Your task to perform on an android device: Is it going to rain today? Image 0: 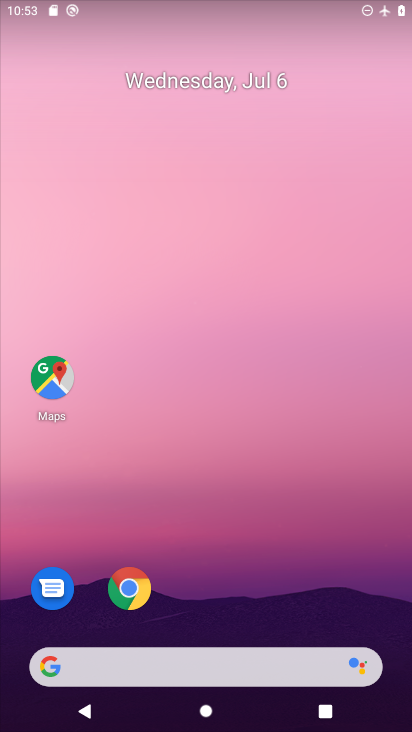
Step 0: drag from (275, 619) to (238, 133)
Your task to perform on an android device: Is it going to rain today? Image 1: 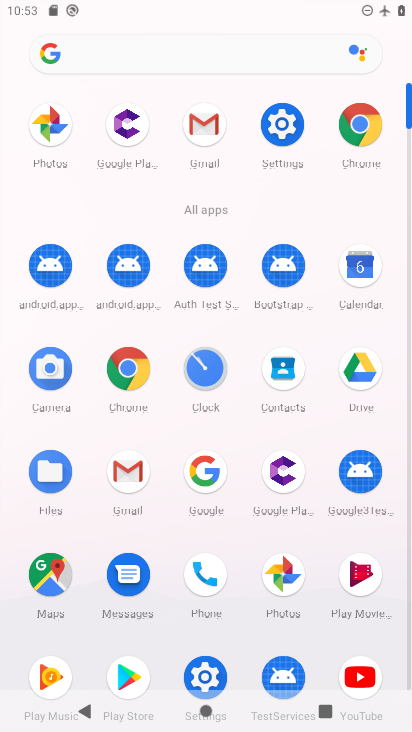
Step 1: click (358, 140)
Your task to perform on an android device: Is it going to rain today? Image 2: 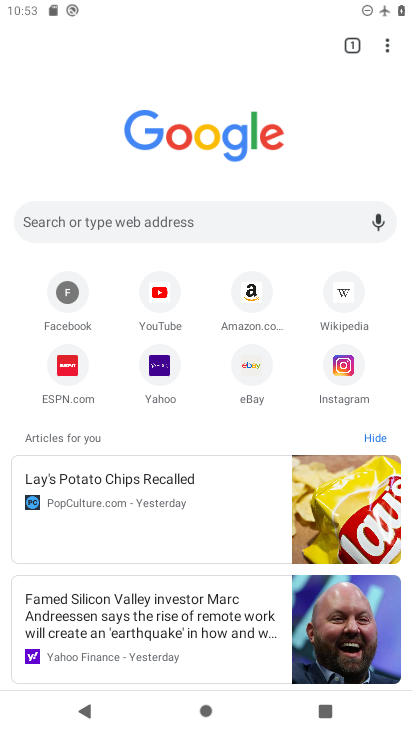
Step 2: click (183, 223)
Your task to perform on an android device: Is it going to rain today? Image 3: 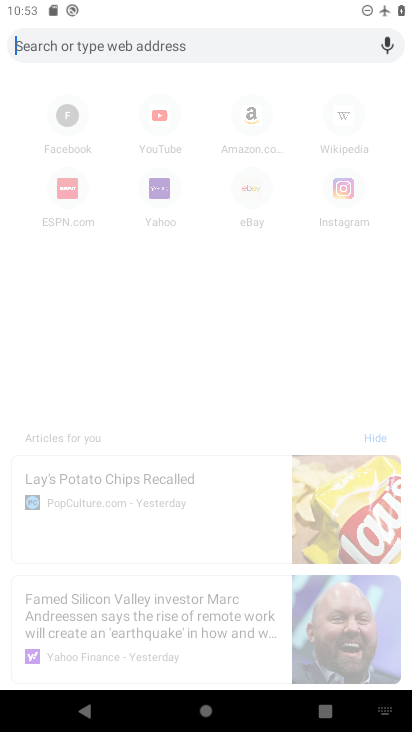
Step 3: type "Is it going to rain today?"
Your task to perform on an android device: Is it going to rain today? Image 4: 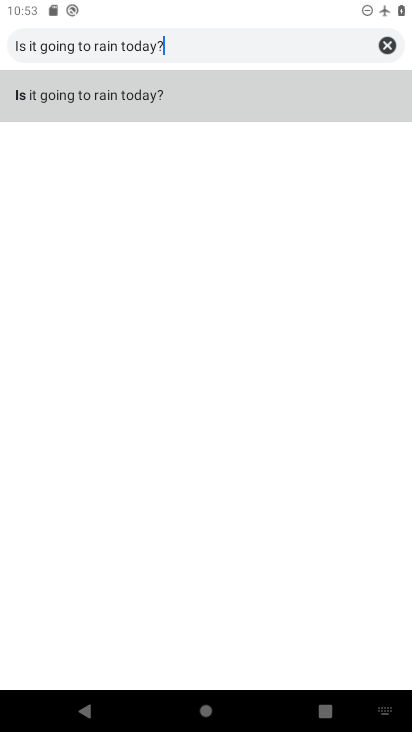
Step 4: click (140, 97)
Your task to perform on an android device: Is it going to rain today? Image 5: 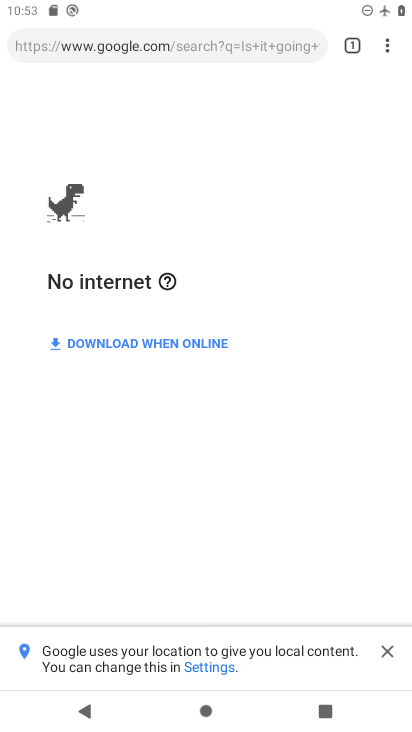
Step 5: task complete